Your task to perform on an android device: remove spam from my inbox in the gmail app Image 0: 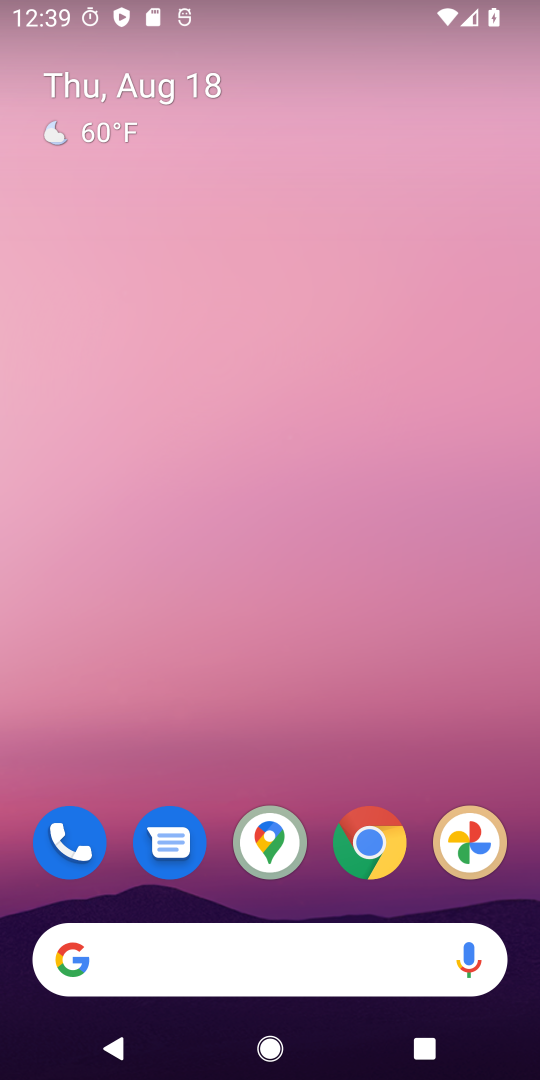
Step 0: drag from (342, 811) to (315, 43)
Your task to perform on an android device: remove spam from my inbox in the gmail app Image 1: 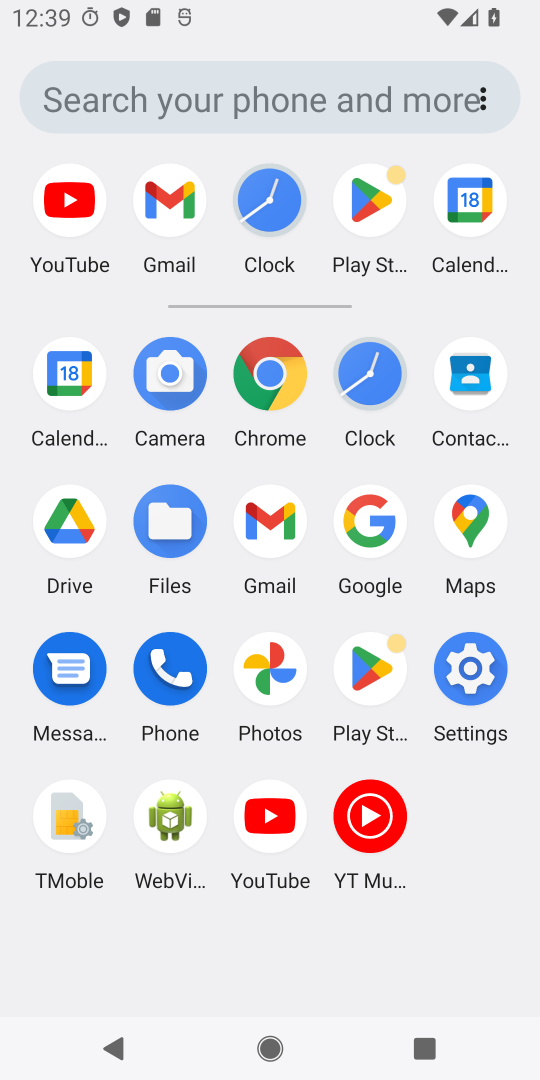
Step 1: click (184, 203)
Your task to perform on an android device: remove spam from my inbox in the gmail app Image 2: 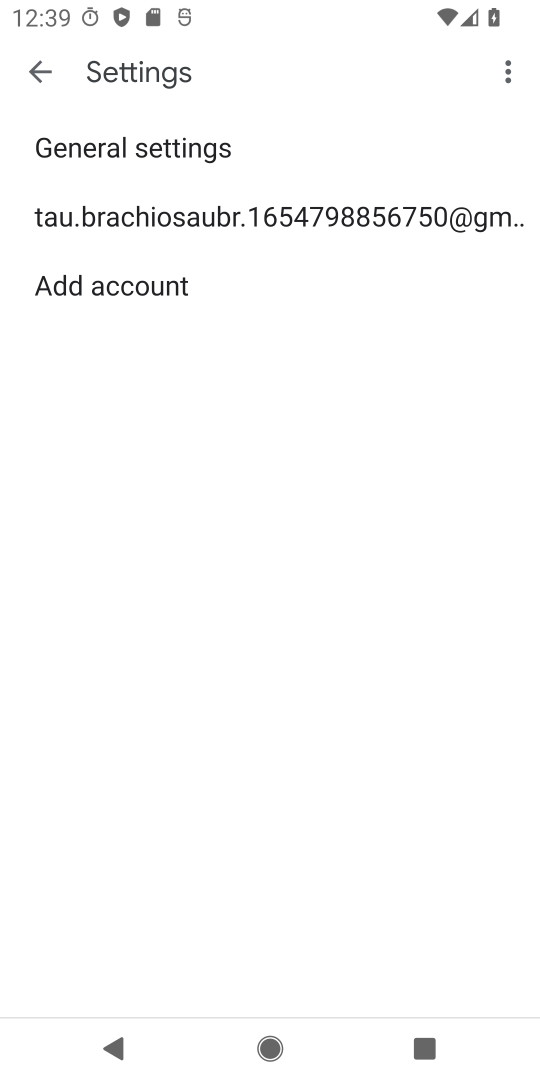
Step 2: click (46, 75)
Your task to perform on an android device: remove spam from my inbox in the gmail app Image 3: 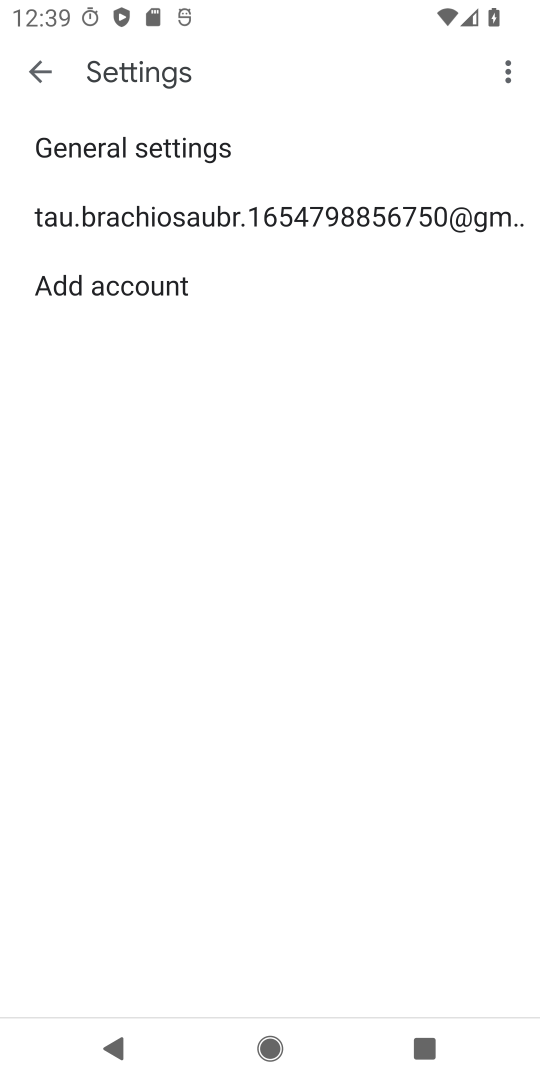
Step 3: click (30, 76)
Your task to perform on an android device: remove spam from my inbox in the gmail app Image 4: 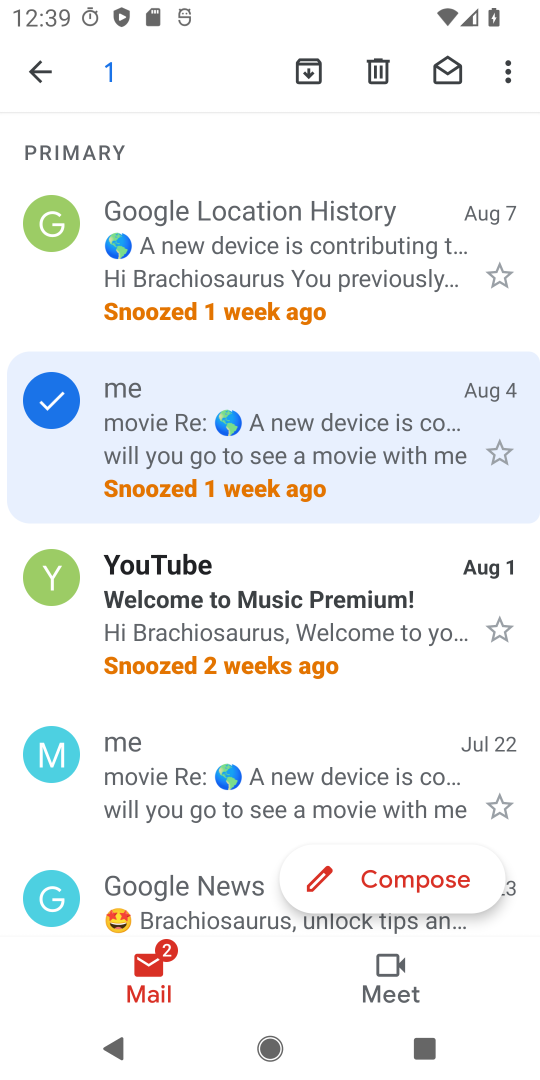
Step 4: click (49, 64)
Your task to perform on an android device: remove spam from my inbox in the gmail app Image 5: 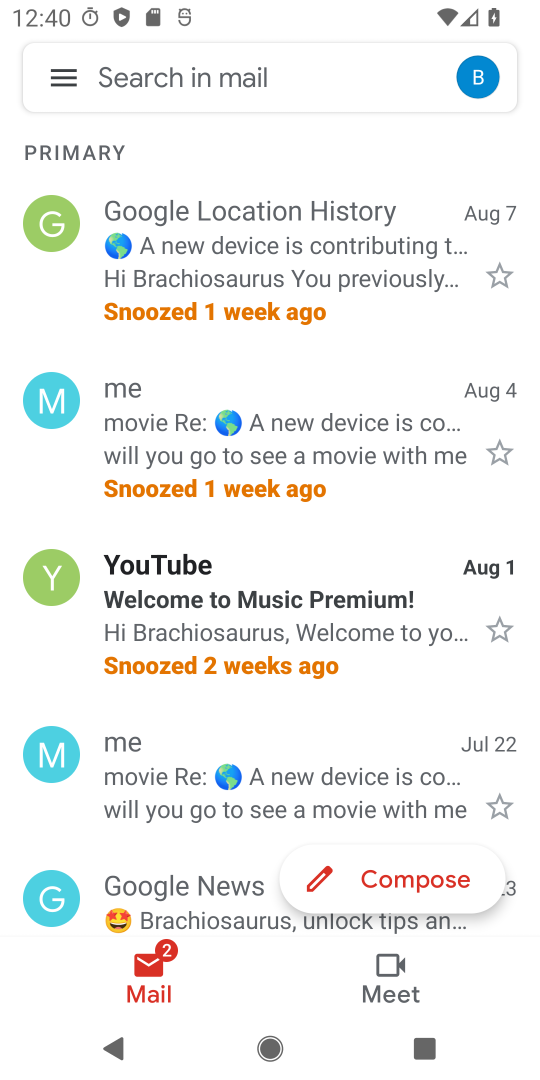
Step 5: click (49, 64)
Your task to perform on an android device: remove spam from my inbox in the gmail app Image 6: 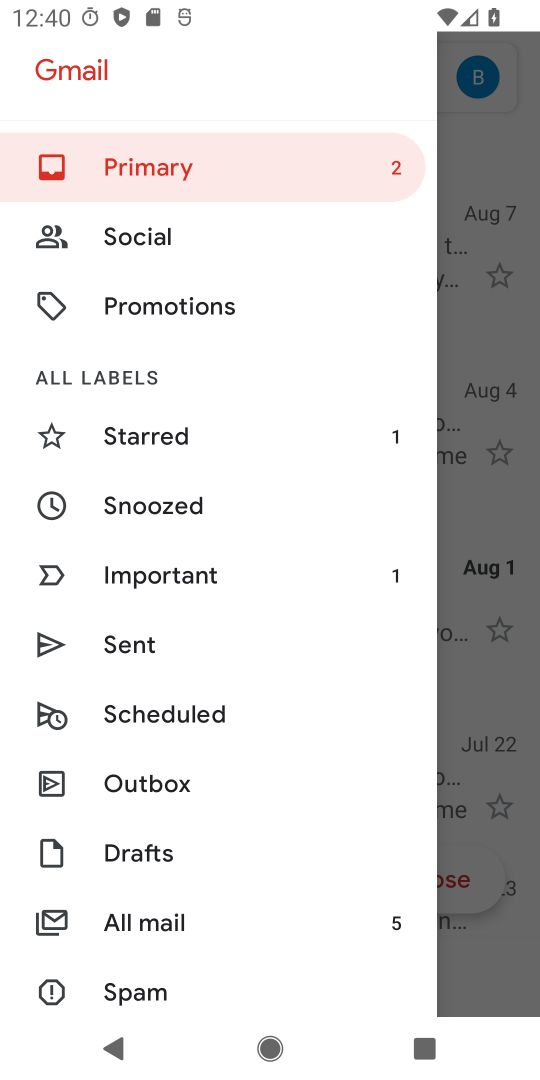
Step 6: click (127, 990)
Your task to perform on an android device: remove spam from my inbox in the gmail app Image 7: 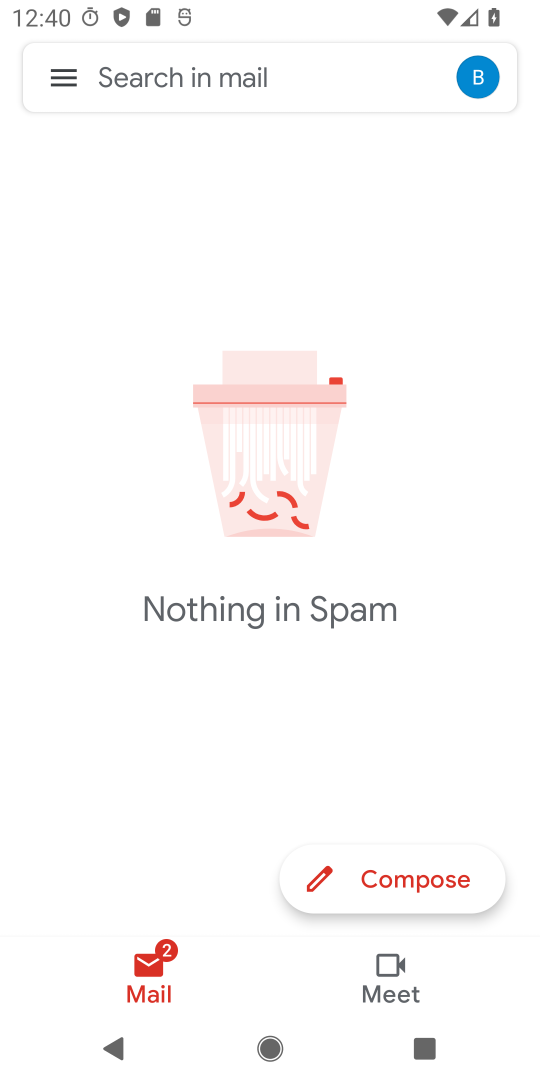
Step 7: task complete